Your task to perform on an android device: add a contact in the contacts app Image 0: 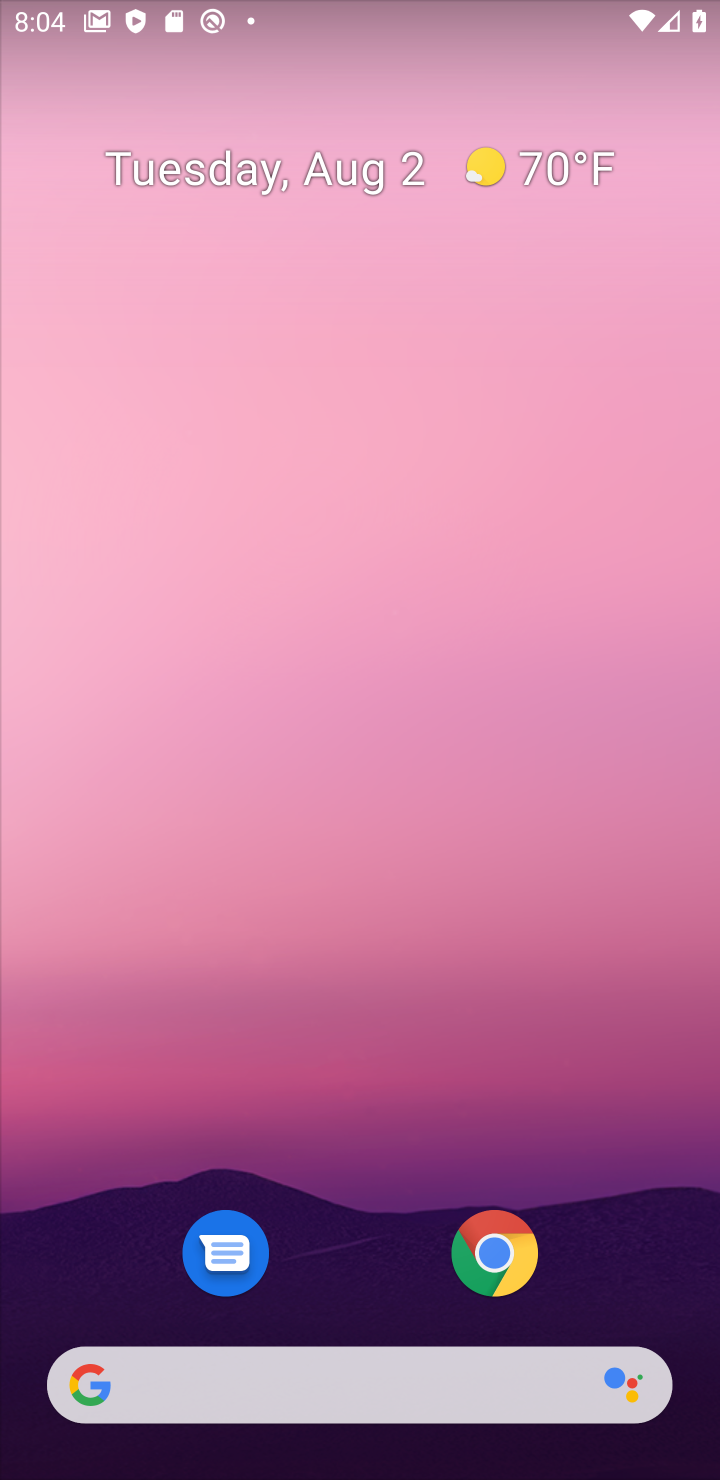
Step 0: drag from (407, 1153) to (570, 327)
Your task to perform on an android device: add a contact in the contacts app Image 1: 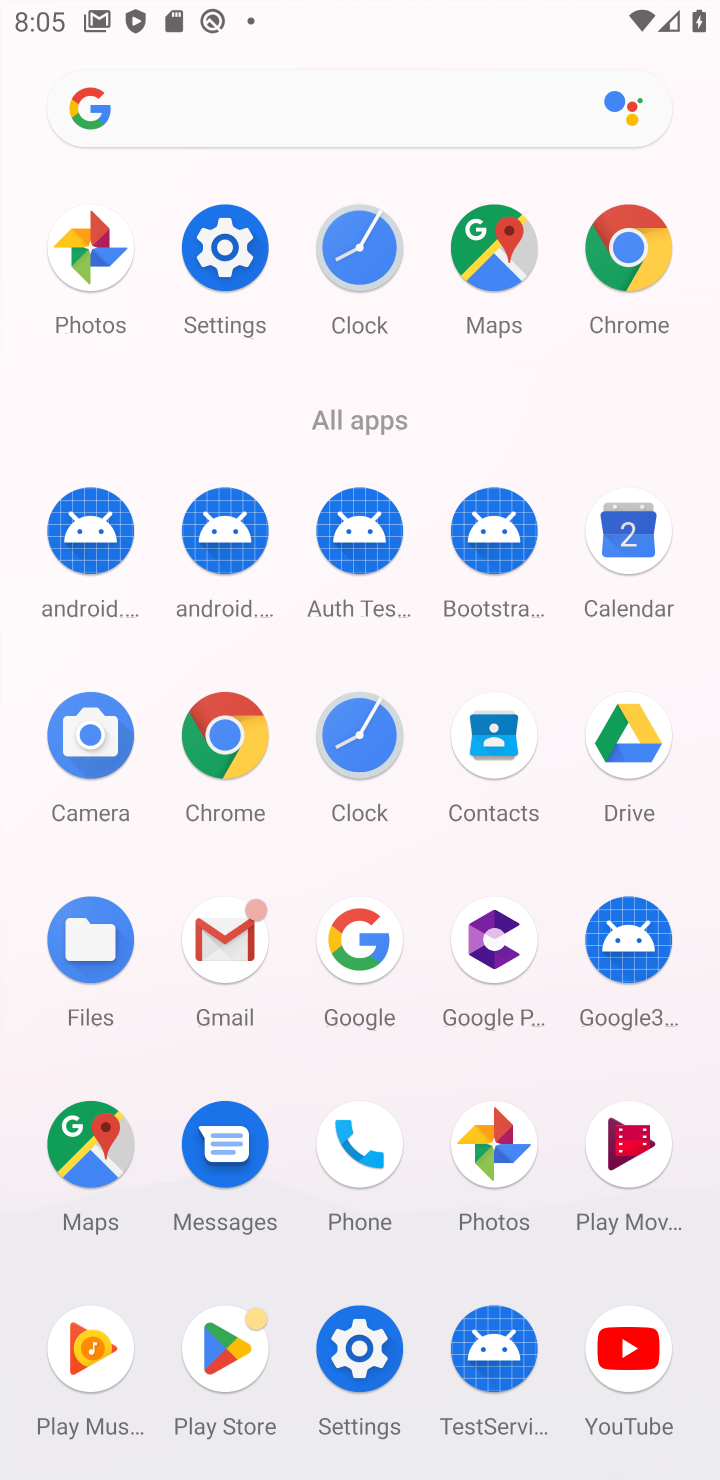
Step 1: click (496, 749)
Your task to perform on an android device: add a contact in the contacts app Image 2: 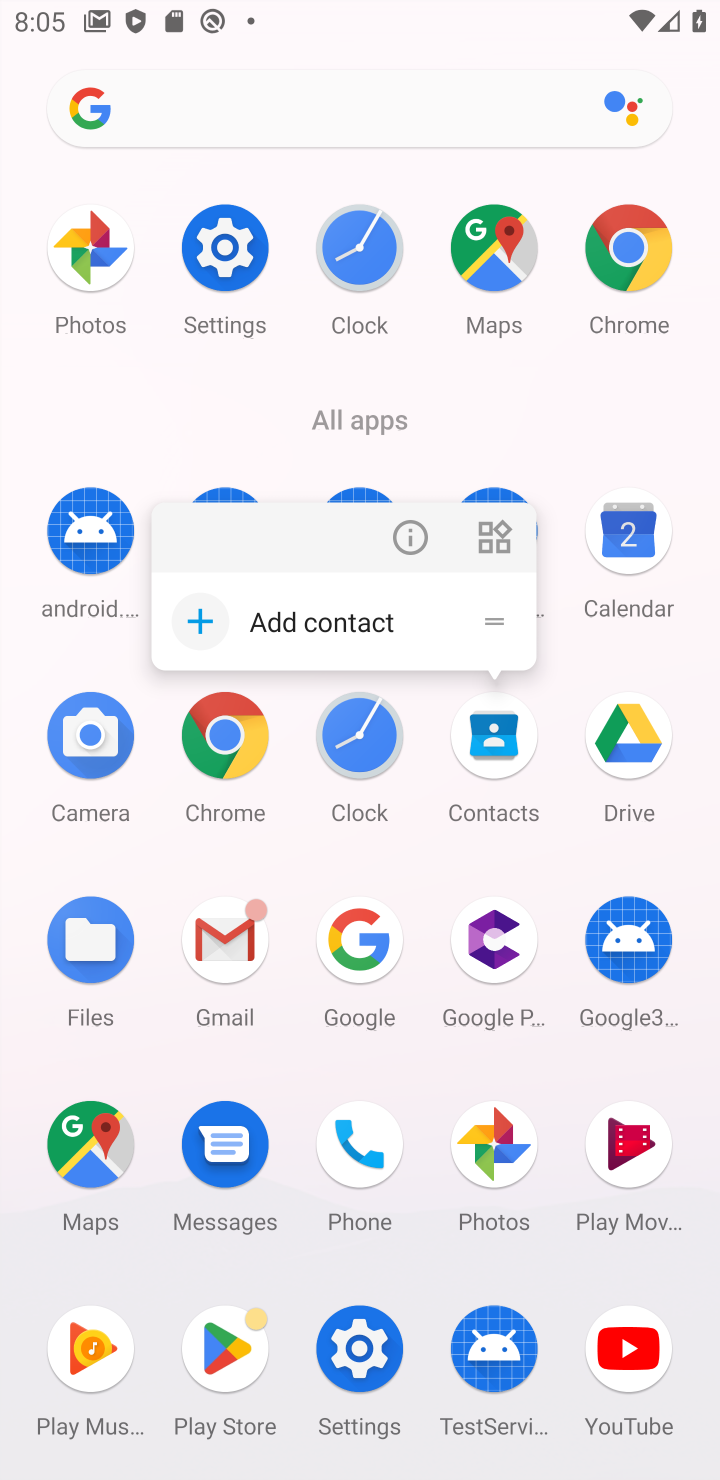
Step 2: click (496, 749)
Your task to perform on an android device: add a contact in the contacts app Image 3: 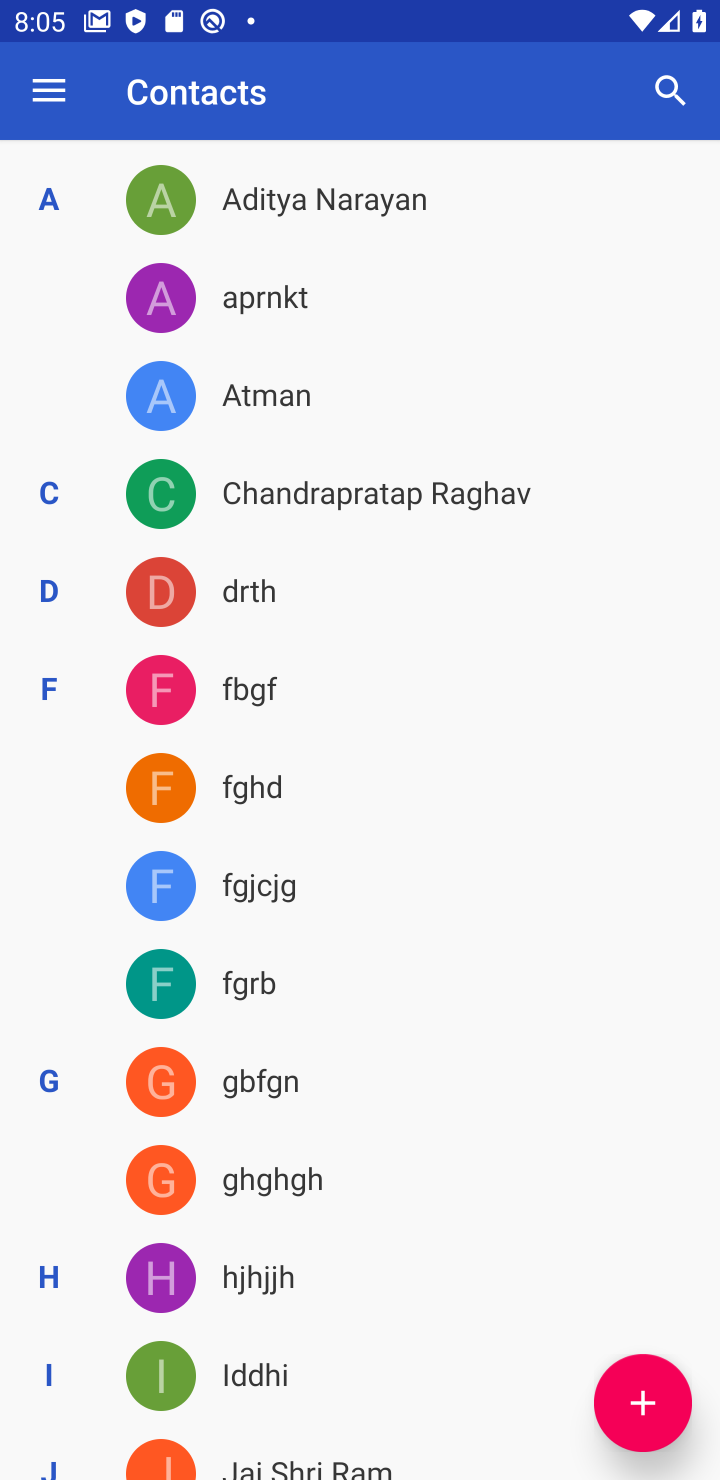
Step 3: click (651, 1416)
Your task to perform on an android device: add a contact in the contacts app Image 4: 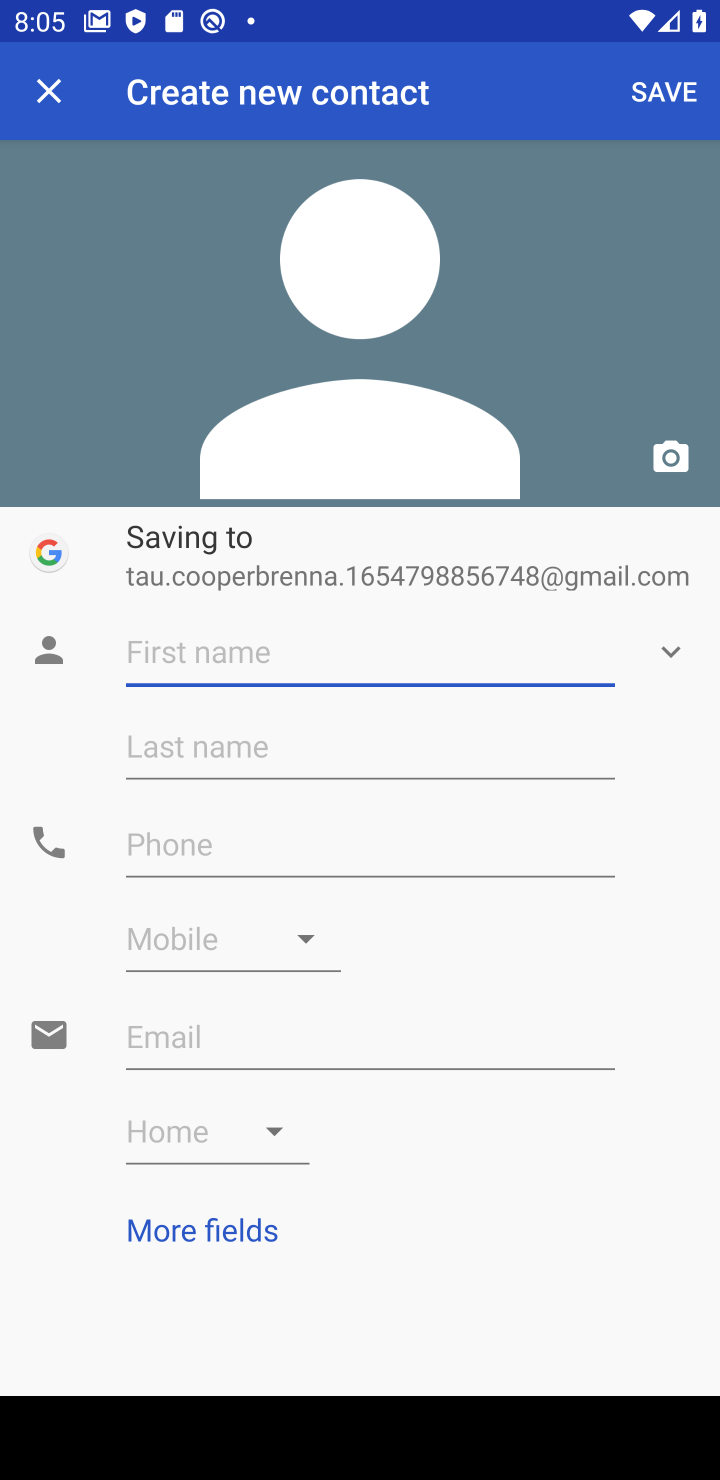
Step 4: type "adhrbbvhf"
Your task to perform on an android device: add a contact in the contacts app Image 5: 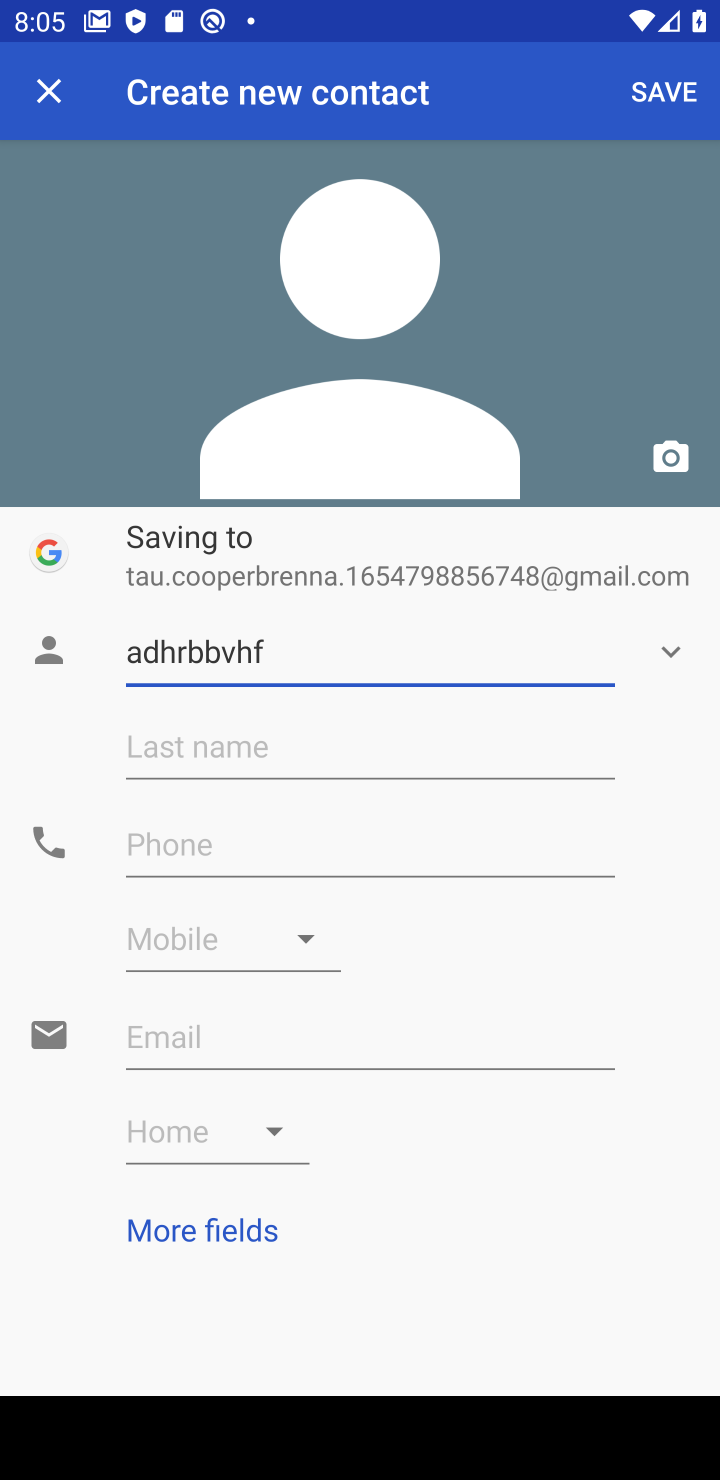
Step 5: click (152, 837)
Your task to perform on an android device: add a contact in the contacts app Image 6: 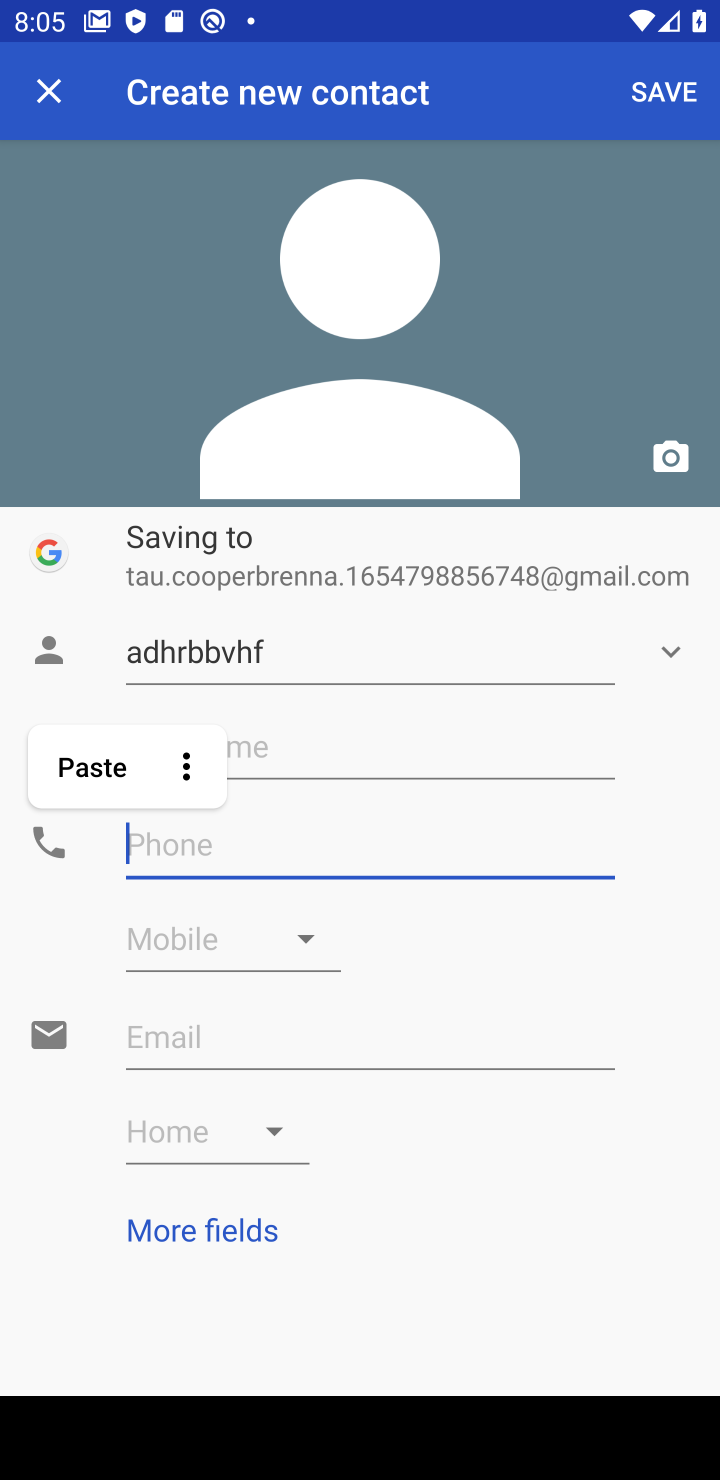
Step 6: type "27465655"
Your task to perform on an android device: add a contact in the contacts app Image 7: 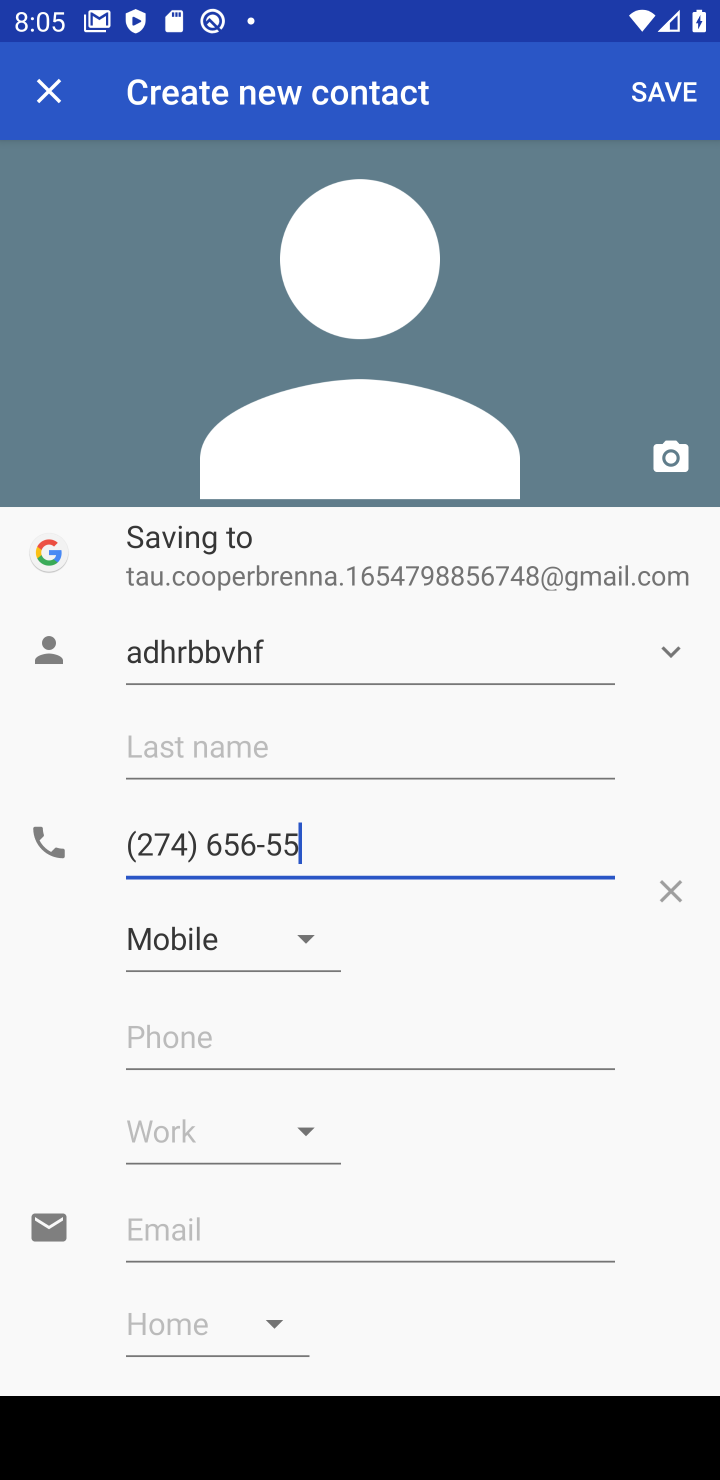
Step 7: click (691, 98)
Your task to perform on an android device: add a contact in the contacts app Image 8: 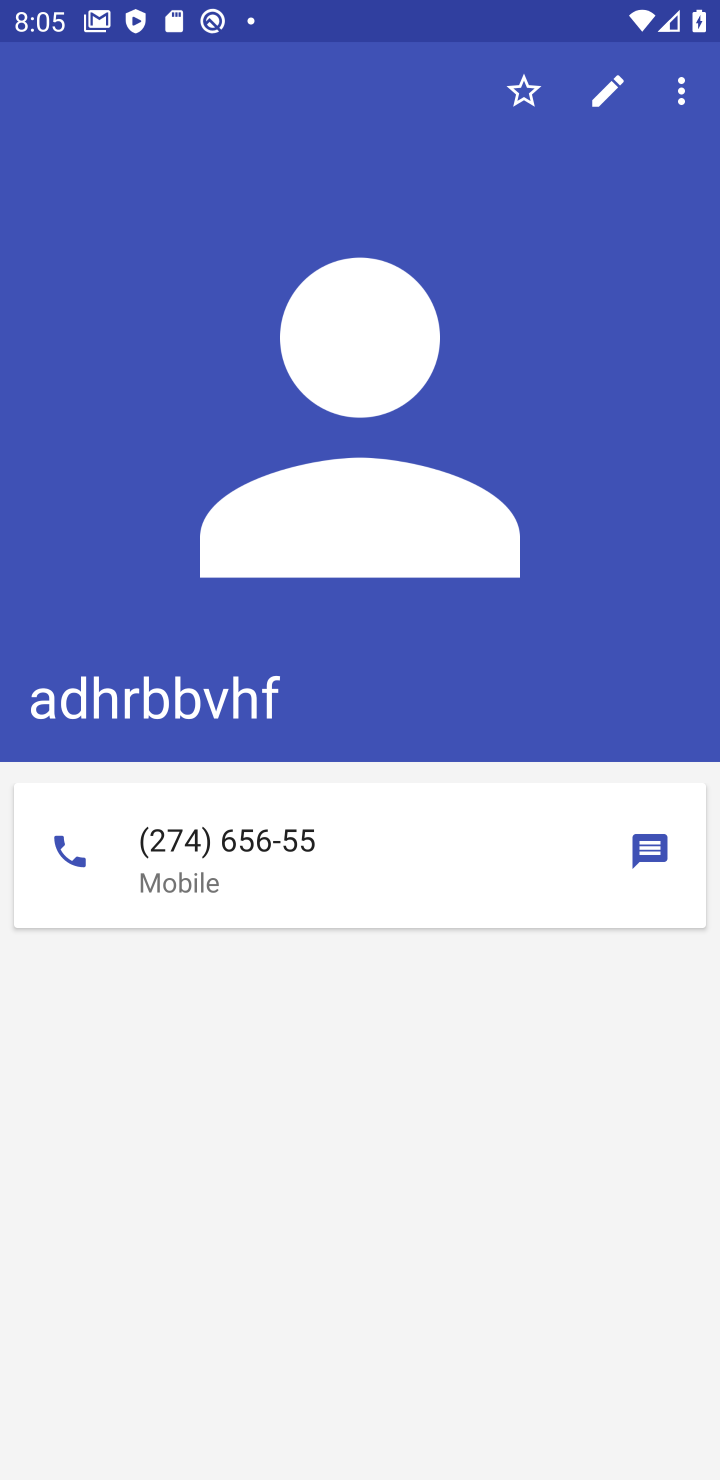
Step 8: task complete